Your task to perform on an android device: Open Google Maps and go to "Timeline" Image 0: 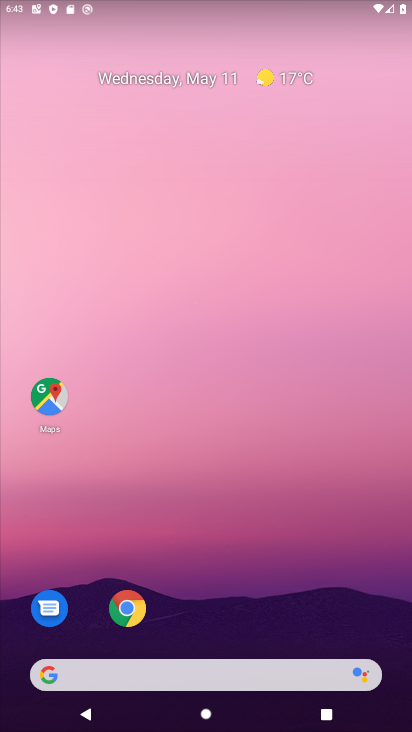
Step 0: click (228, 636)
Your task to perform on an android device: Open Google Maps and go to "Timeline" Image 1: 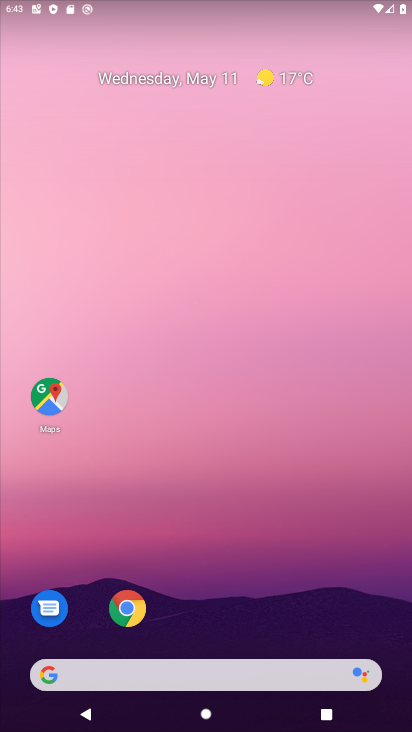
Step 1: click (34, 394)
Your task to perform on an android device: Open Google Maps and go to "Timeline" Image 2: 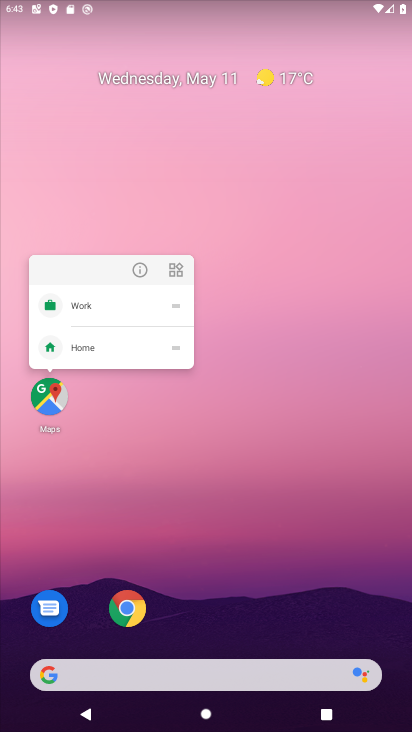
Step 2: click (34, 394)
Your task to perform on an android device: Open Google Maps and go to "Timeline" Image 3: 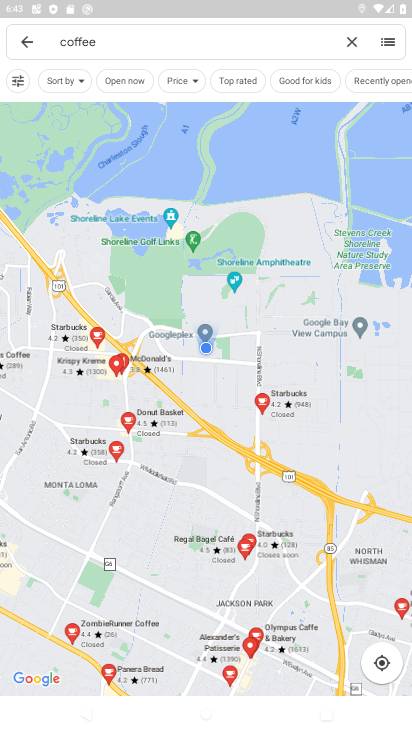
Step 3: click (27, 35)
Your task to perform on an android device: Open Google Maps and go to "Timeline" Image 4: 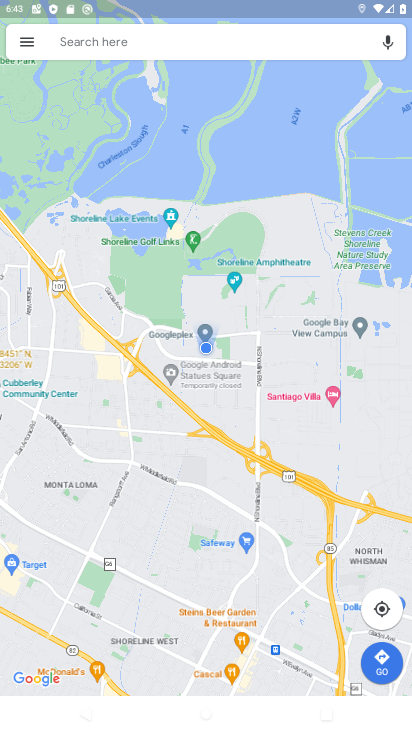
Step 4: click (27, 35)
Your task to perform on an android device: Open Google Maps and go to "Timeline" Image 5: 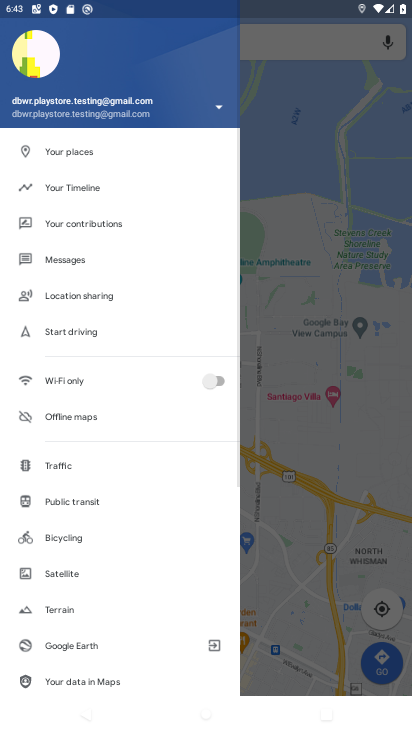
Step 5: click (55, 195)
Your task to perform on an android device: Open Google Maps and go to "Timeline" Image 6: 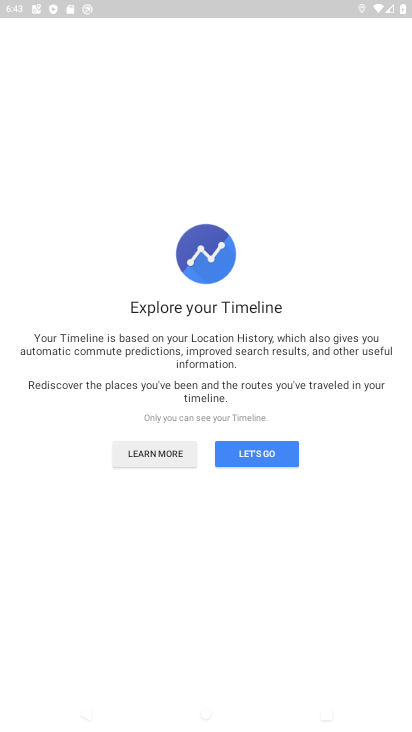
Step 6: task complete